Your task to perform on an android device: Show the shopping cart on walmart.com. Add macbook to the cart on walmart.com Image 0: 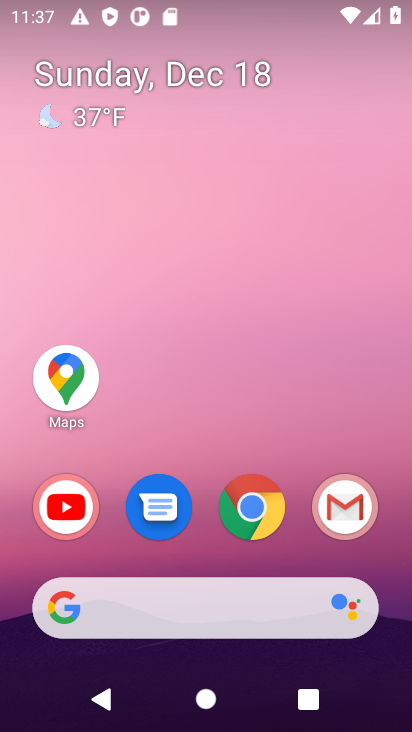
Step 0: click (258, 509)
Your task to perform on an android device: Show the shopping cart on walmart.com. Add macbook to the cart on walmart.com Image 1: 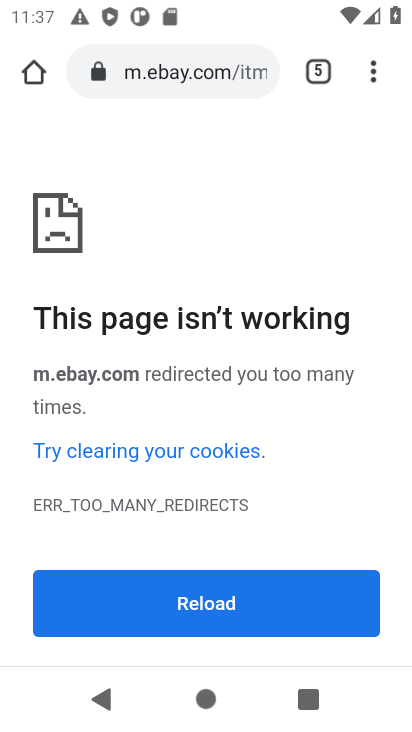
Step 1: click (170, 65)
Your task to perform on an android device: Show the shopping cart on walmart.com. Add macbook to the cart on walmart.com Image 2: 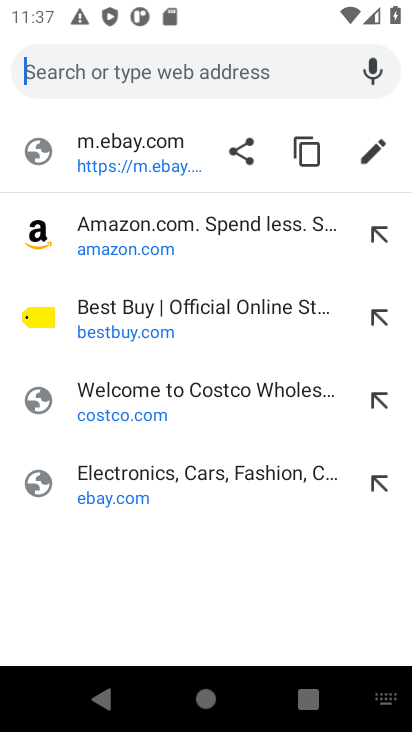
Step 2: type "walmart.com"
Your task to perform on an android device: Show the shopping cart on walmart.com. Add macbook to the cart on walmart.com Image 3: 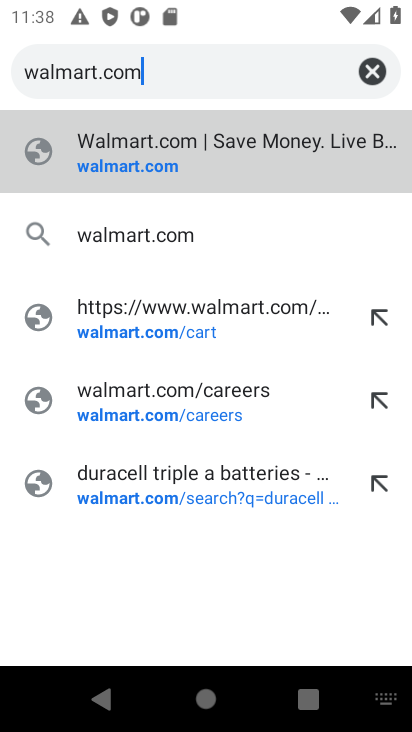
Step 3: click (102, 169)
Your task to perform on an android device: Show the shopping cart on walmart.com. Add macbook to the cart on walmart.com Image 4: 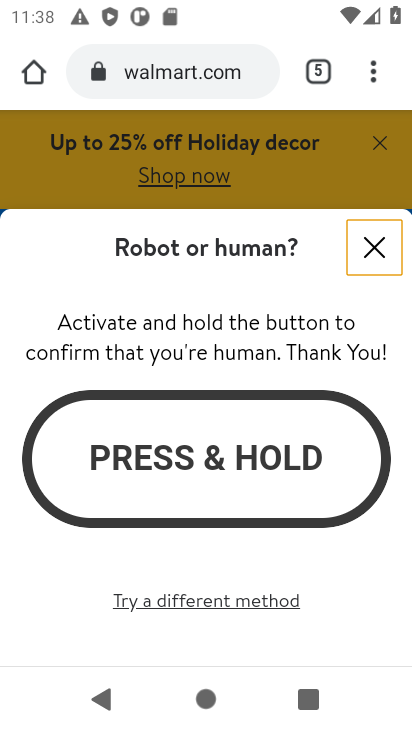
Step 4: click (185, 601)
Your task to perform on an android device: Show the shopping cart on walmart.com. Add macbook to the cart on walmart.com Image 5: 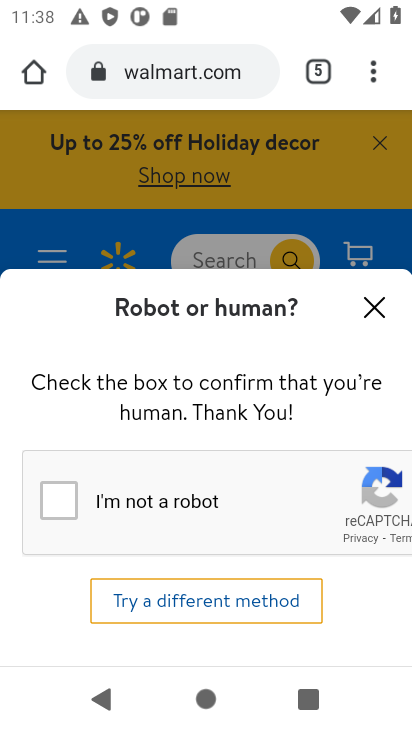
Step 5: click (41, 501)
Your task to perform on an android device: Show the shopping cart on walmart.com. Add macbook to the cart on walmart.com Image 6: 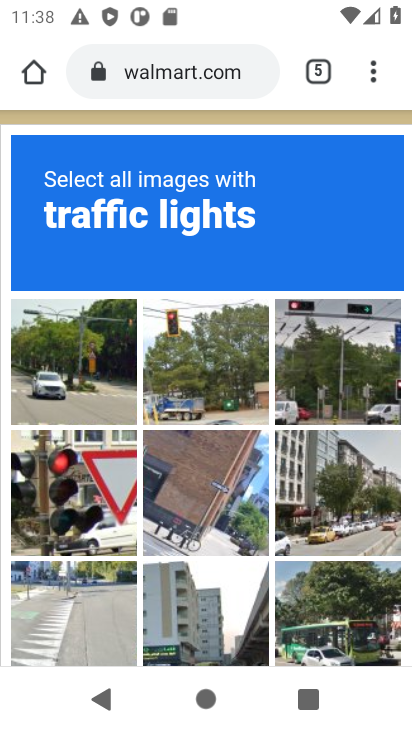
Step 6: click (80, 359)
Your task to perform on an android device: Show the shopping cart on walmart.com. Add macbook to the cart on walmart.com Image 7: 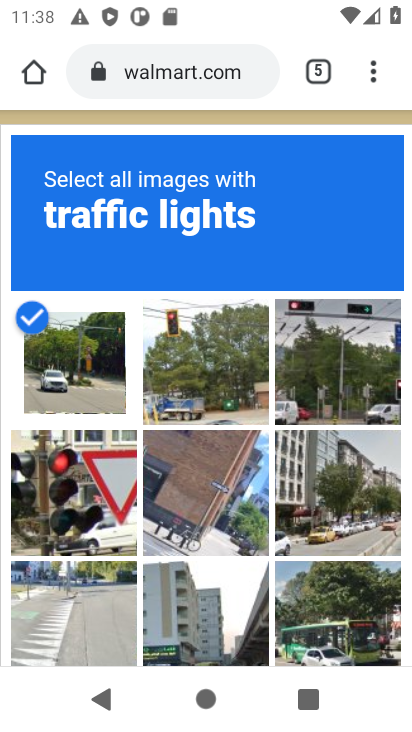
Step 7: click (177, 364)
Your task to perform on an android device: Show the shopping cart on walmart.com. Add macbook to the cart on walmart.com Image 8: 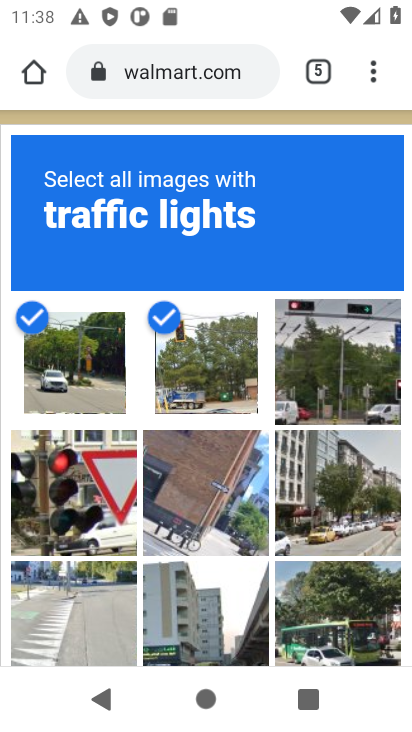
Step 8: click (323, 392)
Your task to perform on an android device: Show the shopping cart on walmart.com. Add macbook to the cart on walmart.com Image 9: 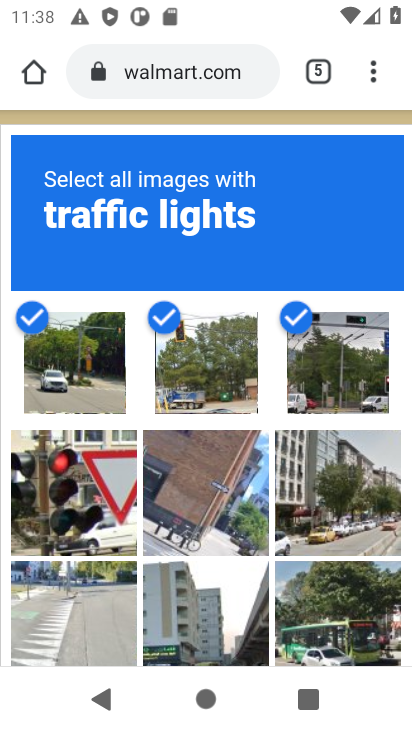
Step 9: click (66, 494)
Your task to perform on an android device: Show the shopping cart on walmart.com. Add macbook to the cart on walmart.com Image 10: 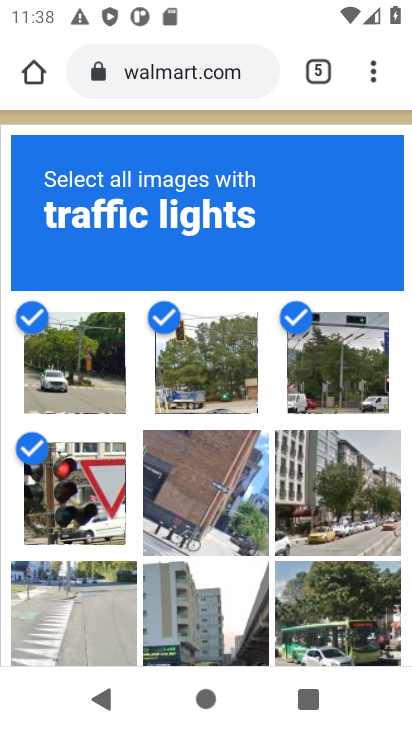
Step 10: click (357, 645)
Your task to perform on an android device: Show the shopping cart on walmart.com. Add macbook to the cart on walmart.com Image 11: 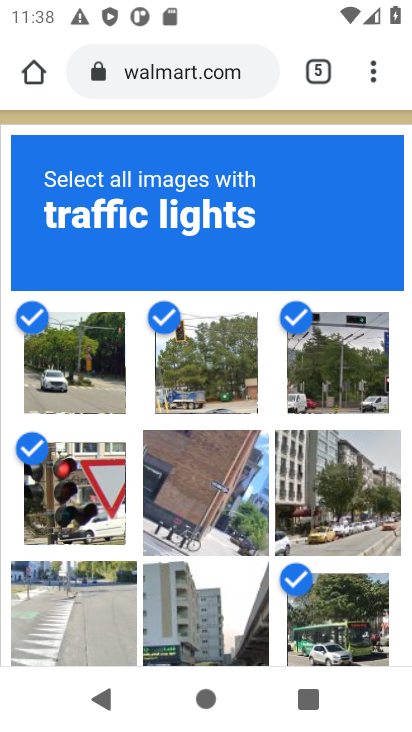
Step 11: click (343, 504)
Your task to perform on an android device: Show the shopping cart on walmart.com. Add macbook to the cart on walmart.com Image 12: 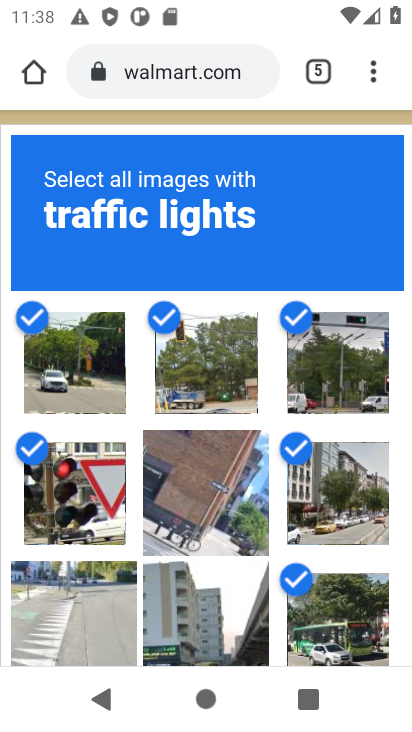
Step 12: click (66, 648)
Your task to perform on an android device: Show the shopping cart on walmart.com. Add macbook to the cart on walmart.com Image 13: 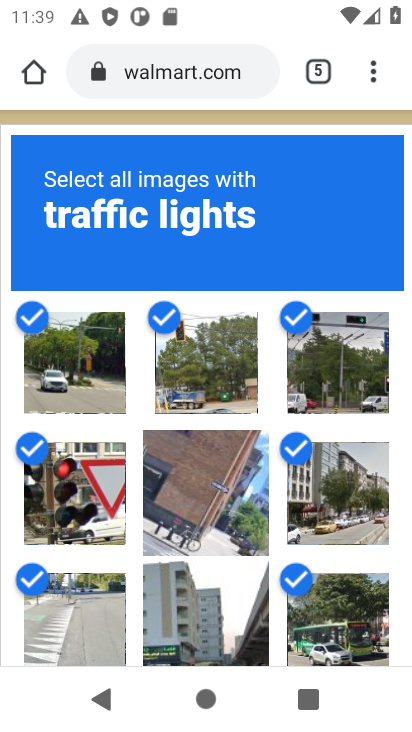
Step 13: drag from (166, 595) to (163, 304)
Your task to perform on an android device: Show the shopping cart on walmart.com. Add macbook to the cart on walmart.com Image 14: 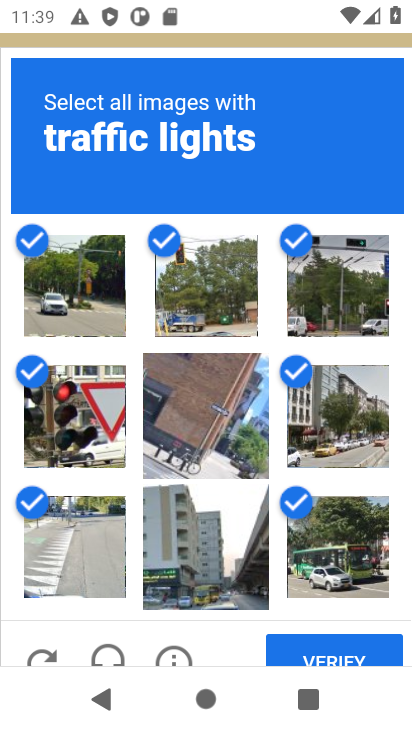
Step 14: click (339, 457)
Your task to perform on an android device: Show the shopping cart on walmart.com. Add macbook to the cart on walmart.com Image 15: 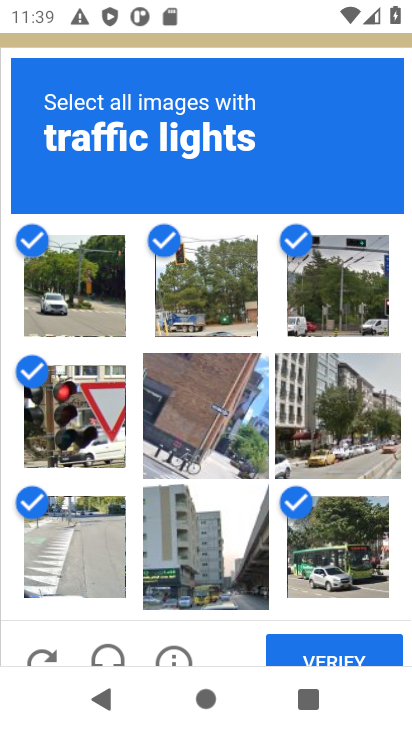
Step 15: click (57, 587)
Your task to perform on an android device: Show the shopping cart on walmart.com. Add macbook to the cart on walmart.com Image 16: 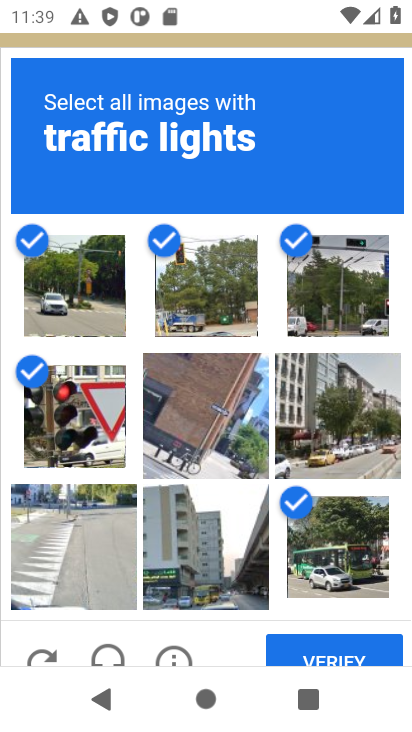
Step 16: click (344, 663)
Your task to perform on an android device: Show the shopping cart on walmart.com. Add macbook to the cart on walmart.com Image 17: 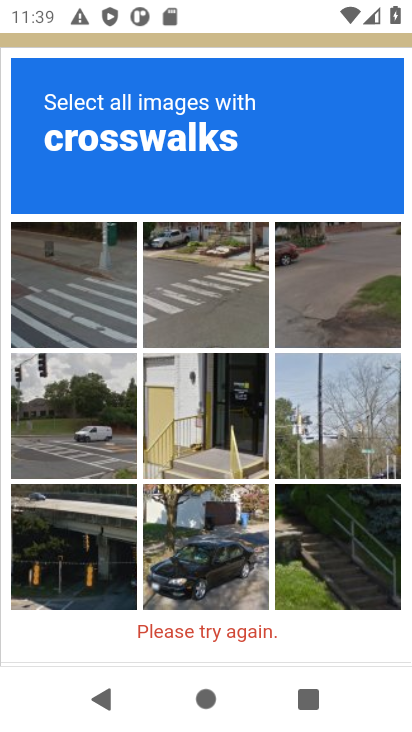
Step 17: click (88, 311)
Your task to perform on an android device: Show the shopping cart on walmart.com. Add macbook to the cart on walmart.com Image 18: 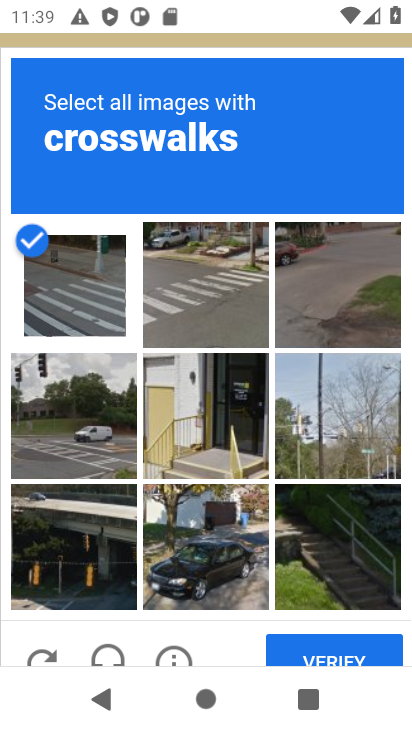
Step 18: click (220, 281)
Your task to perform on an android device: Show the shopping cart on walmart.com. Add macbook to the cart on walmart.com Image 19: 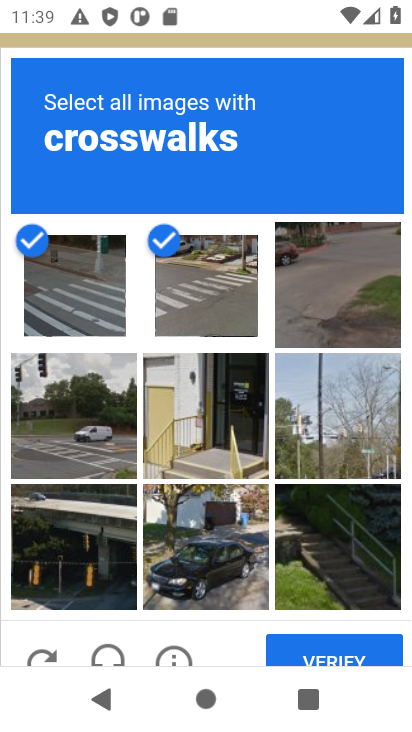
Step 19: click (68, 449)
Your task to perform on an android device: Show the shopping cart on walmart.com. Add macbook to the cart on walmart.com Image 20: 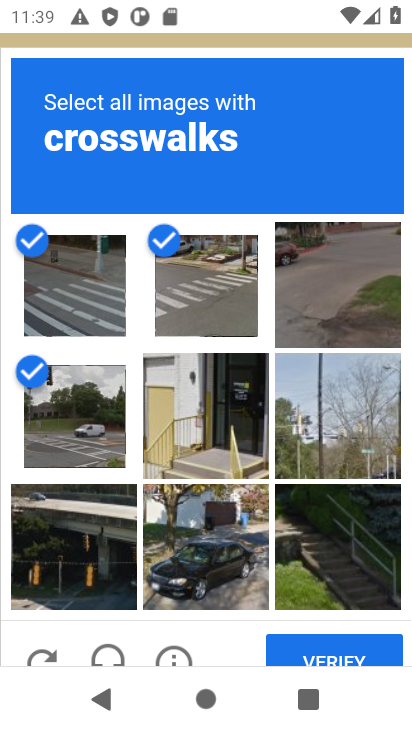
Step 20: click (66, 605)
Your task to perform on an android device: Show the shopping cart on walmart.com. Add macbook to the cart on walmart.com Image 21: 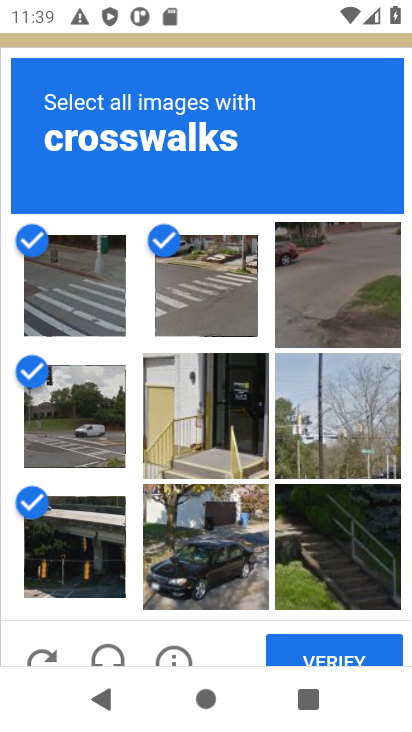
Step 21: click (328, 656)
Your task to perform on an android device: Show the shopping cart on walmart.com. Add macbook to the cart on walmart.com Image 22: 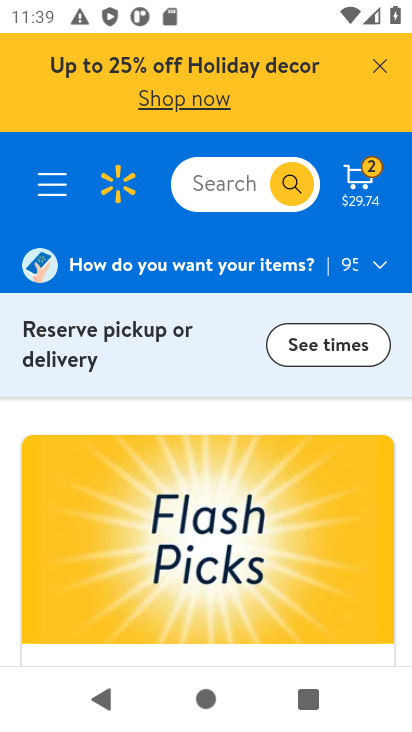
Step 22: click (366, 184)
Your task to perform on an android device: Show the shopping cart on walmart.com. Add macbook to the cart on walmart.com Image 23: 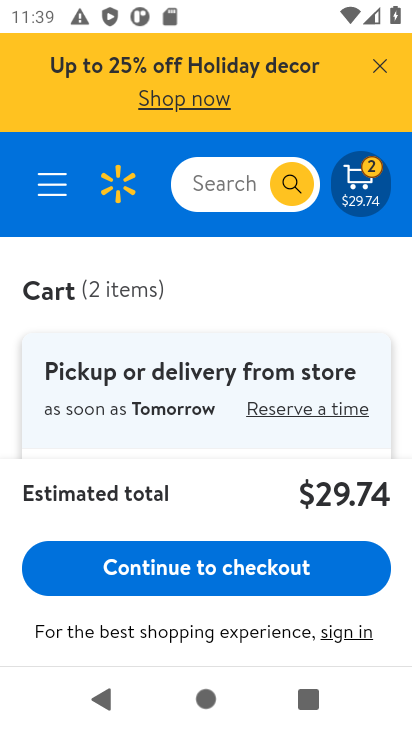
Step 23: drag from (167, 499) to (157, 329)
Your task to perform on an android device: Show the shopping cart on walmart.com. Add macbook to the cart on walmart.com Image 24: 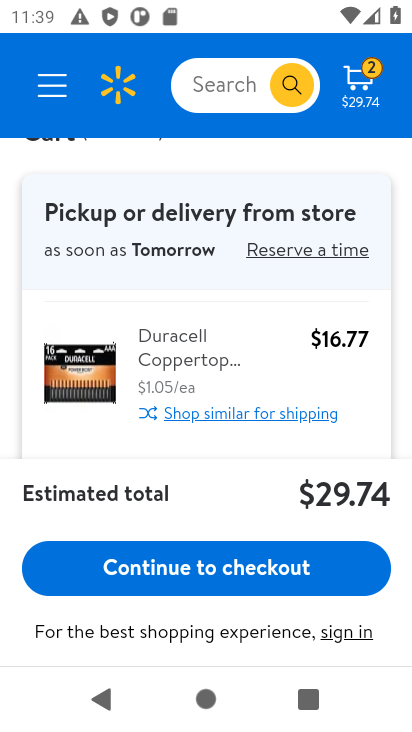
Step 24: click (211, 97)
Your task to perform on an android device: Show the shopping cart on walmart.com. Add macbook to the cart on walmart.com Image 25: 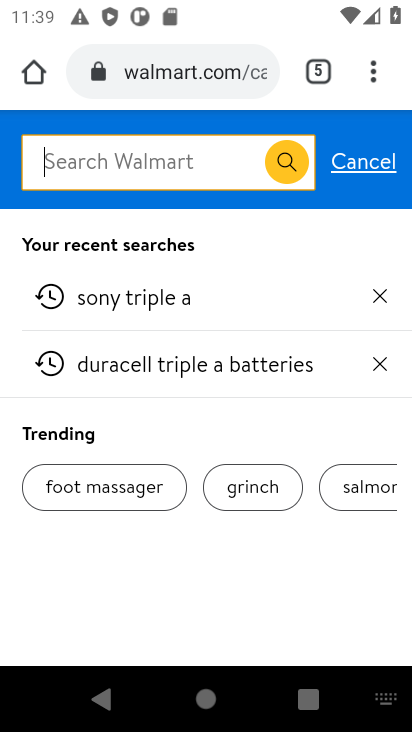
Step 25: type "macbook"
Your task to perform on an android device: Show the shopping cart on walmart.com. Add macbook to the cart on walmart.com Image 26: 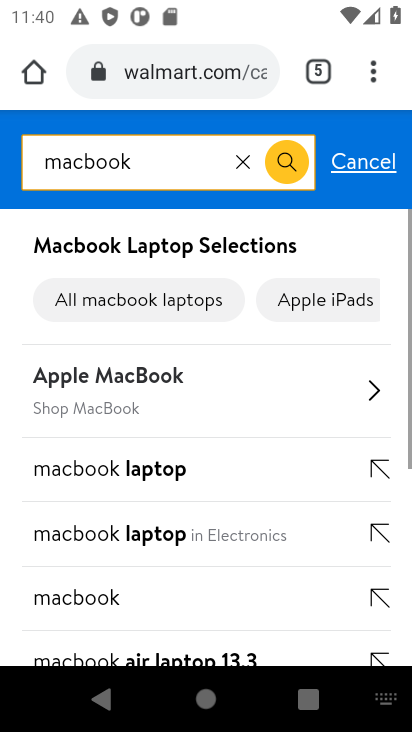
Step 26: click (85, 604)
Your task to perform on an android device: Show the shopping cart on walmart.com. Add macbook to the cart on walmart.com Image 27: 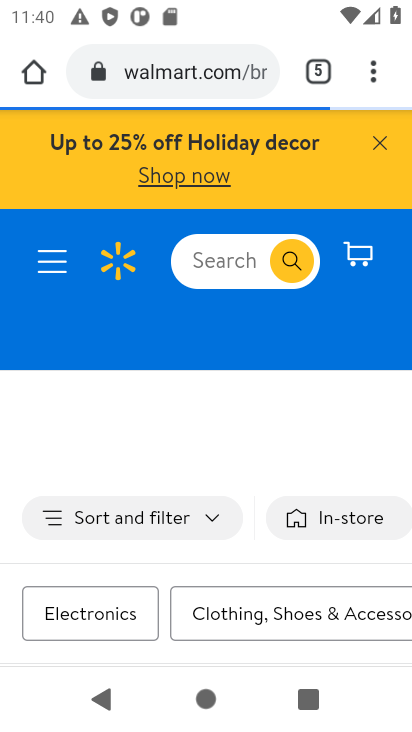
Step 27: drag from (154, 586) to (134, 236)
Your task to perform on an android device: Show the shopping cart on walmart.com. Add macbook to the cart on walmart.com Image 28: 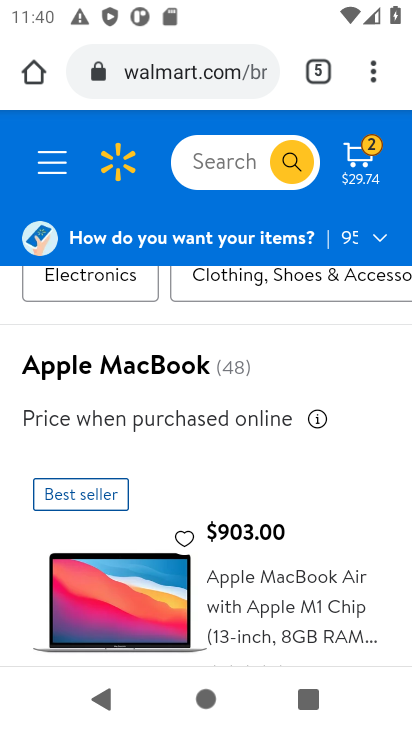
Step 28: drag from (152, 493) to (136, 162)
Your task to perform on an android device: Show the shopping cart on walmart.com. Add macbook to the cart on walmart.com Image 29: 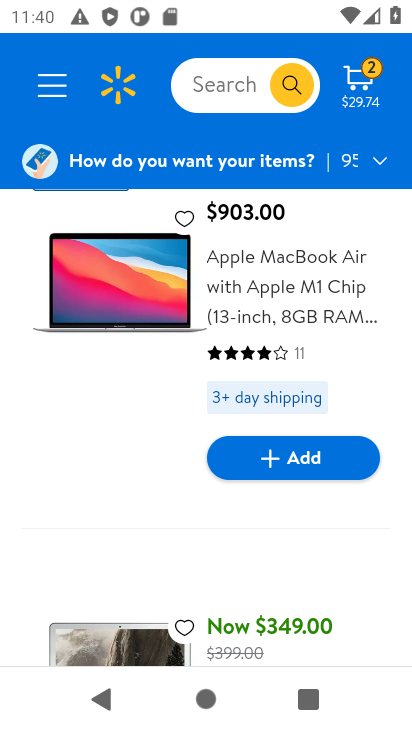
Step 29: click (294, 461)
Your task to perform on an android device: Show the shopping cart on walmart.com. Add macbook to the cart on walmart.com Image 30: 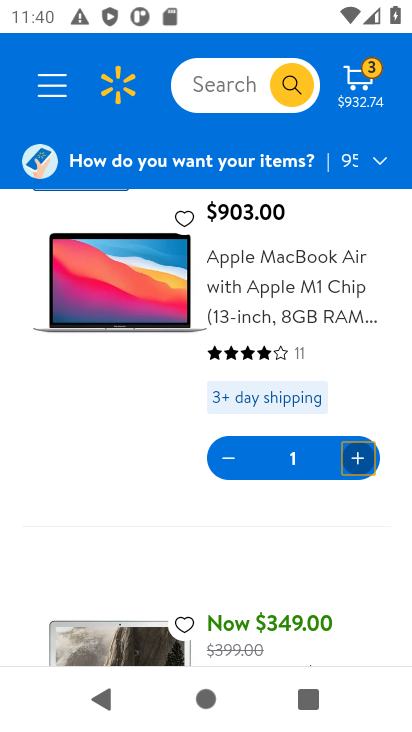
Step 30: task complete